Your task to perform on an android device: snooze an email in the gmail app Image 0: 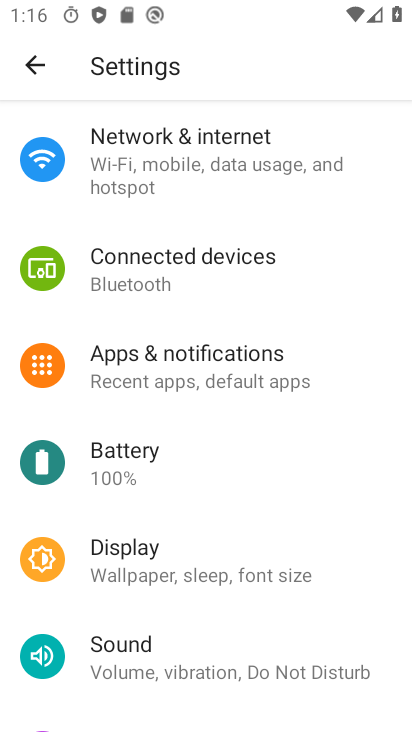
Step 0: press home button
Your task to perform on an android device: snooze an email in the gmail app Image 1: 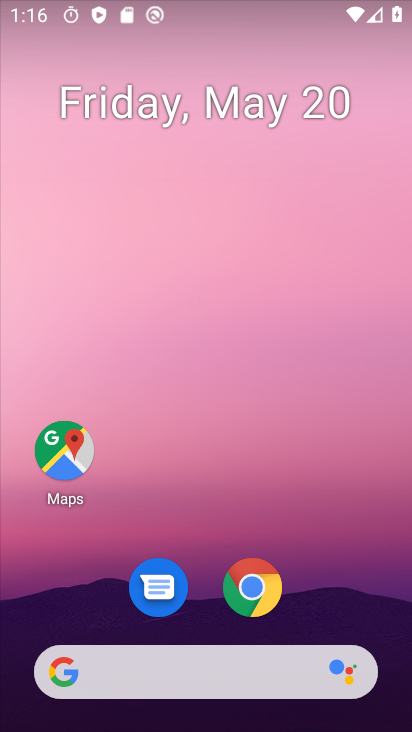
Step 1: drag from (303, 497) to (183, 96)
Your task to perform on an android device: snooze an email in the gmail app Image 2: 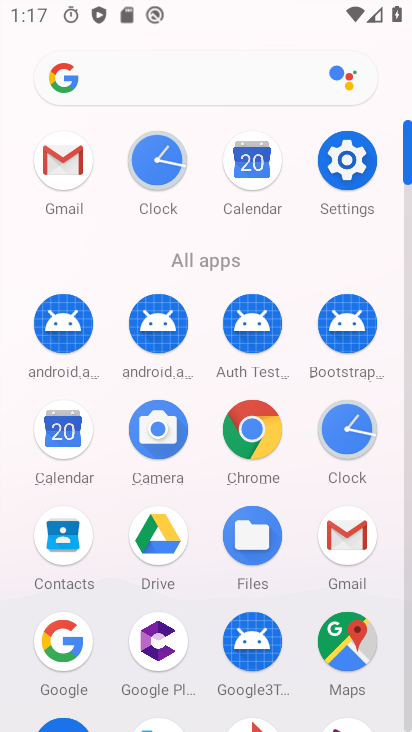
Step 2: click (341, 552)
Your task to perform on an android device: snooze an email in the gmail app Image 3: 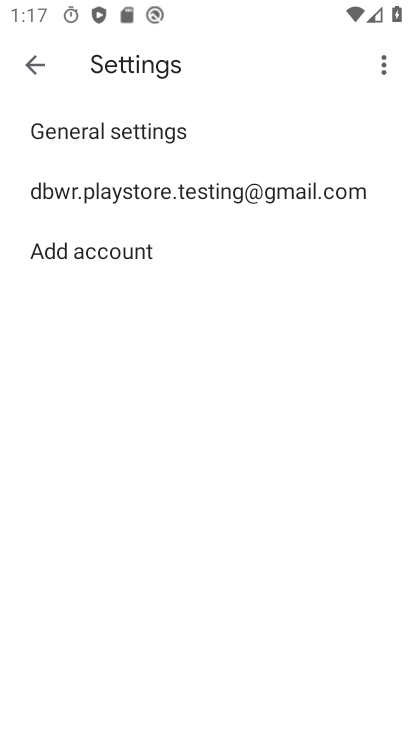
Step 3: click (214, 186)
Your task to perform on an android device: snooze an email in the gmail app Image 4: 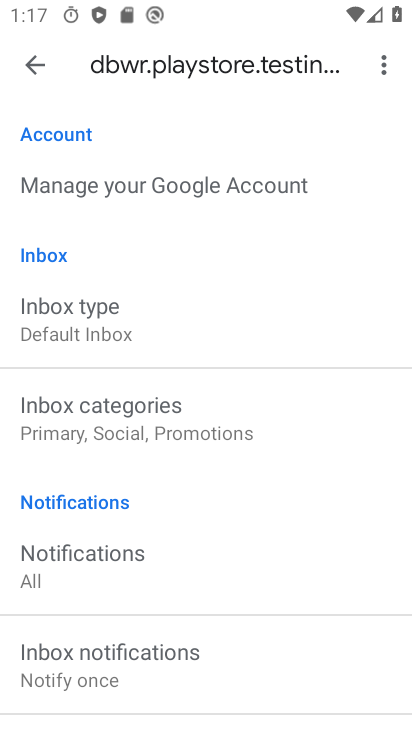
Step 4: click (41, 64)
Your task to perform on an android device: snooze an email in the gmail app Image 5: 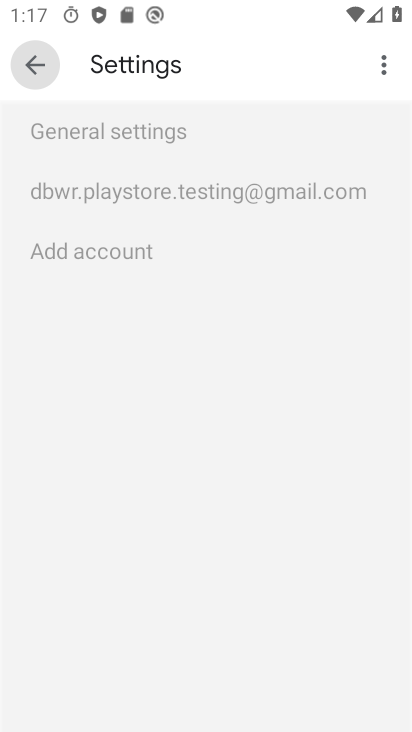
Step 5: click (42, 63)
Your task to perform on an android device: snooze an email in the gmail app Image 6: 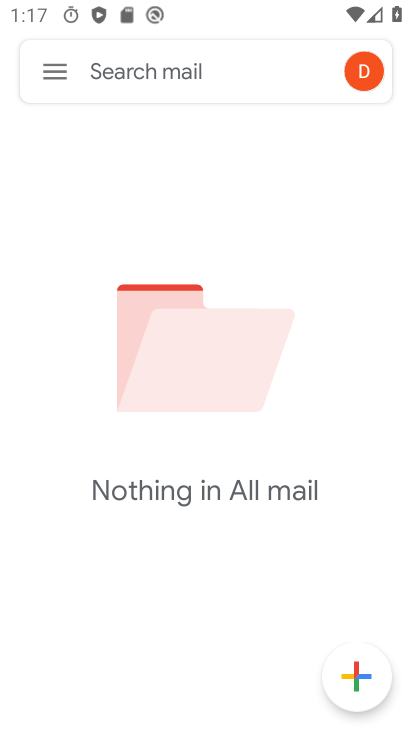
Step 6: task complete